Your task to perform on an android device: set an alarm Image 0: 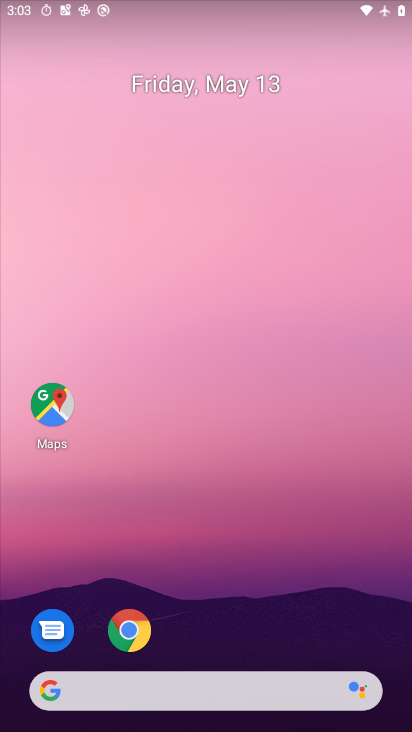
Step 0: drag from (300, 573) to (327, 141)
Your task to perform on an android device: set an alarm Image 1: 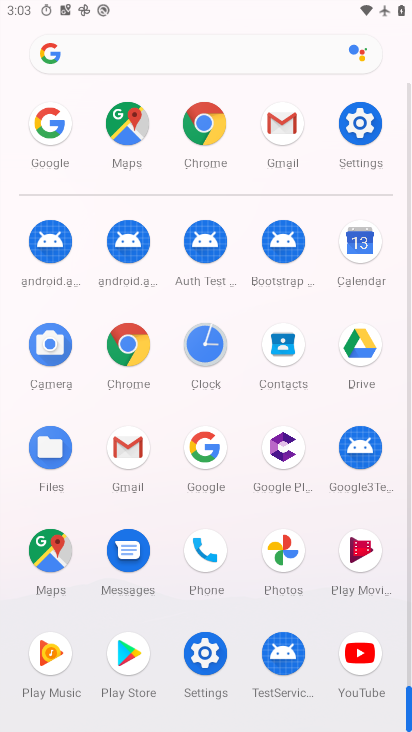
Step 1: click (210, 359)
Your task to perform on an android device: set an alarm Image 2: 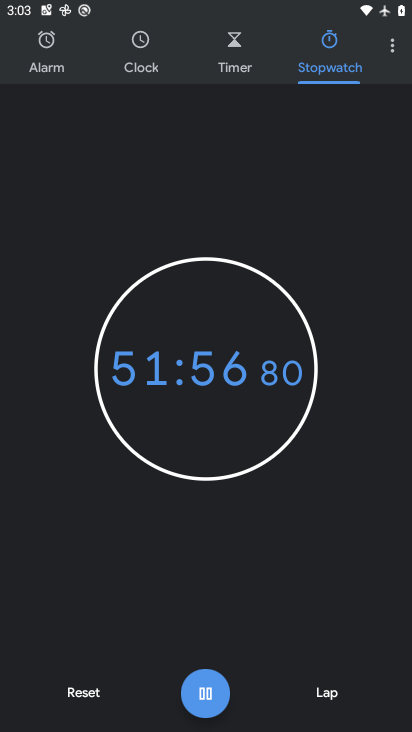
Step 2: click (67, 68)
Your task to perform on an android device: set an alarm Image 3: 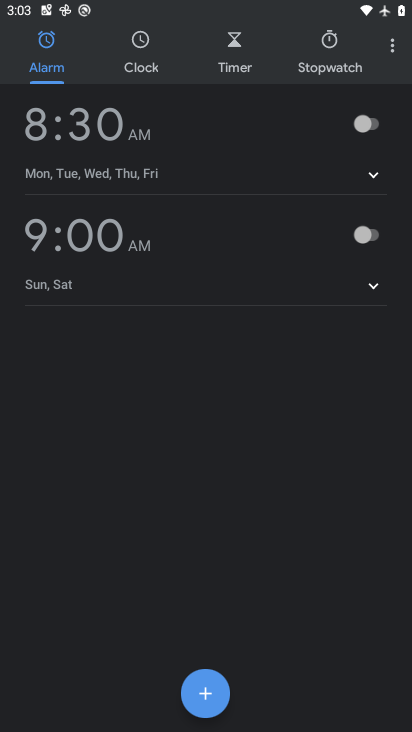
Step 3: click (199, 697)
Your task to perform on an android device: set an alarm Image 4: 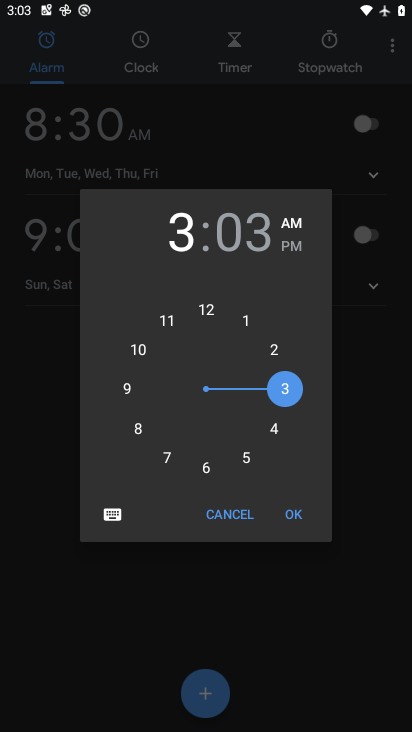
Step 4: click (292, 519)
Your task to perform on an android device: set an alarm Image 5: 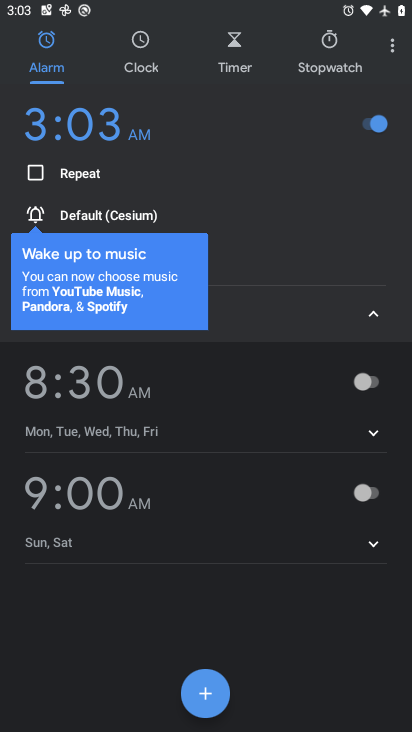
Step 5: task complete